Your task to perform on an android device: Open maps Image 0: 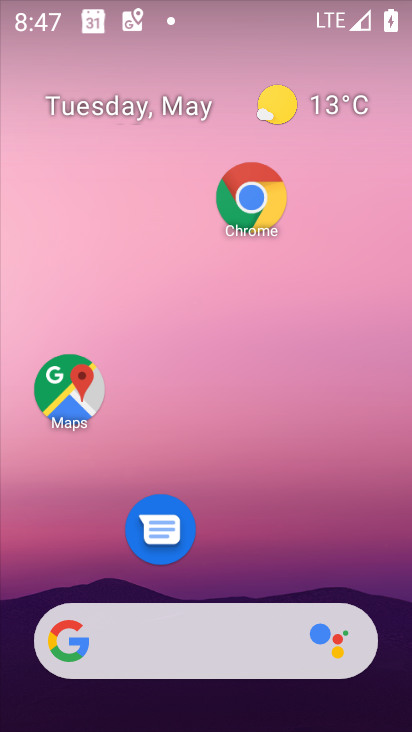
Step 0: click (81, 419)
Your task to perform on an android device: Open maps Image 1: 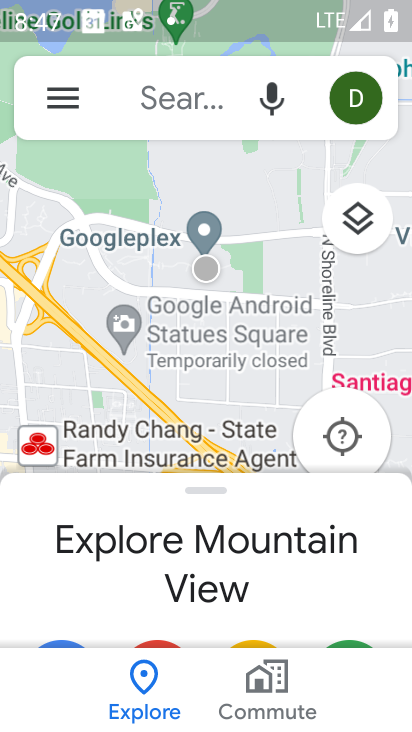
Step 1: task complete